Your task to perform on an android device: Open calendar and show me the fourth week of next month Image 0: 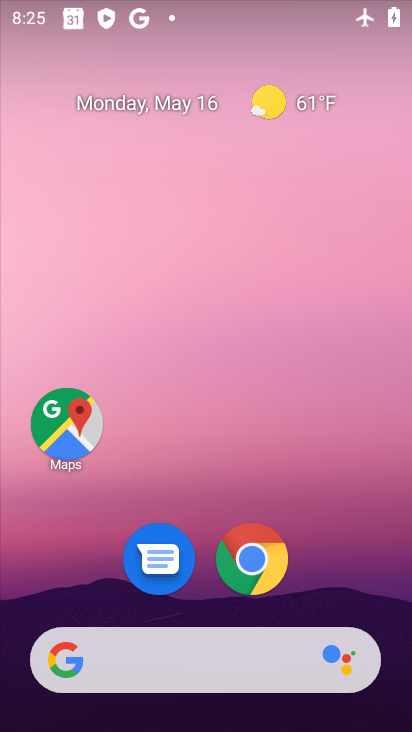
Step 0: drag from (190, 595) to (271, 74)
Your task to perform on an android device: Open calendar and show me the fourth week of next month Image 1: 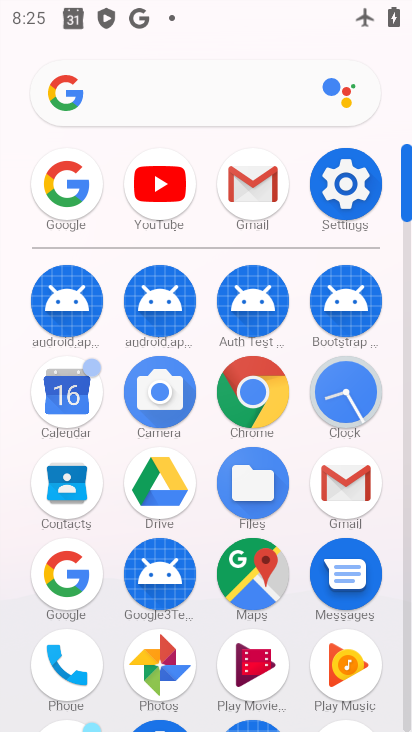
Step 1: click (71, 408)
Your task to perform on an android device: Open calendar and show me the fourth week of next month Image 2: 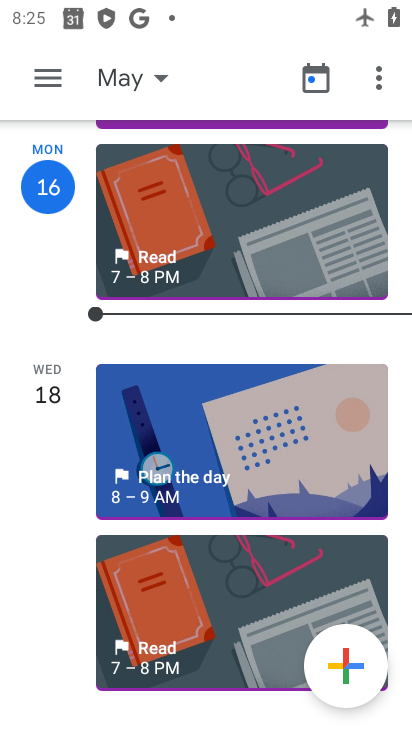
Step 2: click (123, 70)
Your task to perform on an android device: Open calendar and show me the fourth week of next month Image 3: 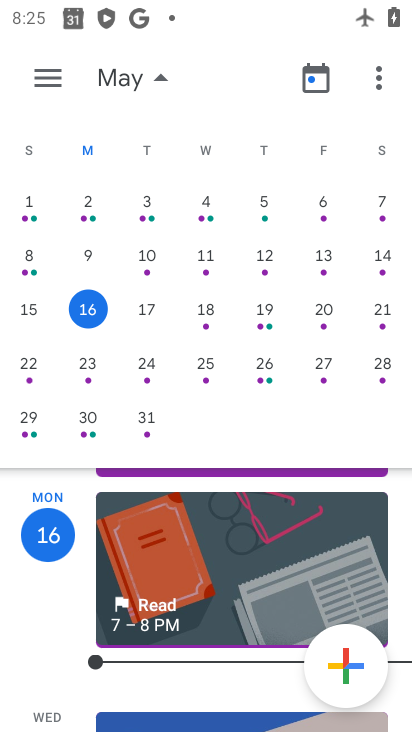
Step 3: drag from (406, 288) to (0, 296)
Your task to perform on an android device: Open calendar and show me the fourth week of next month Image 4: 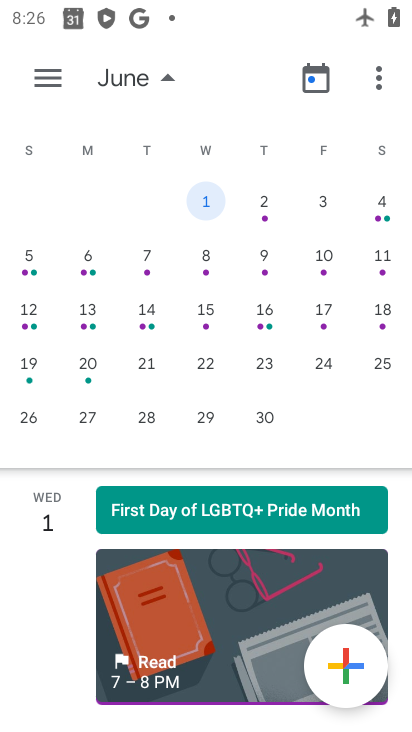
Step 4: click (84, 365)
Your task to perform on an android device: Open calendar and show me the fourth week of next month Image 5: 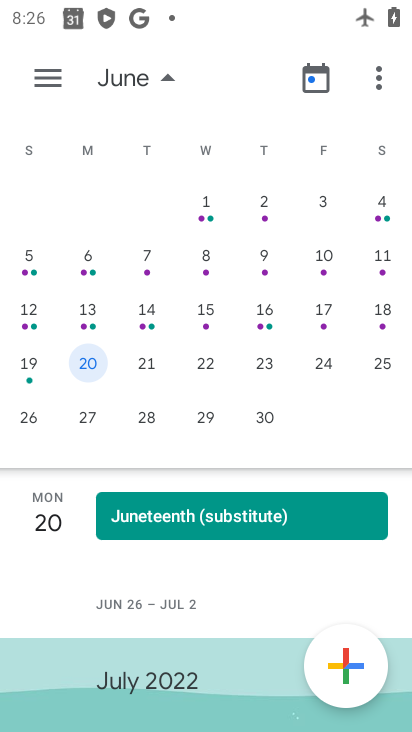
Step 5: task complete